Your task to perform on an android device: open sync settings in chrome Image 0: 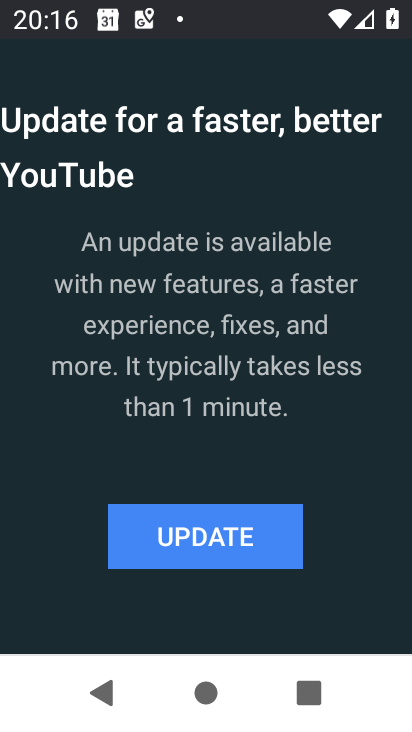
Step 0: press home button
Your task to perform on an android device: open sync settings in chrome Image 1: 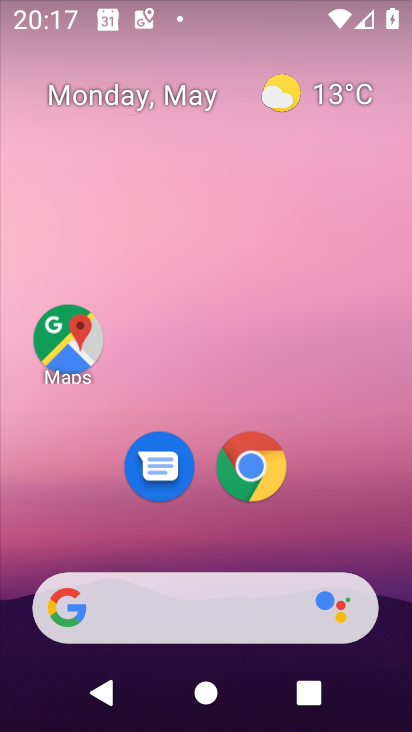
Step 1: drag from (302, 548) to (357, 257)
Your task to perform on an android device: open sync settings in chrome Image 2: 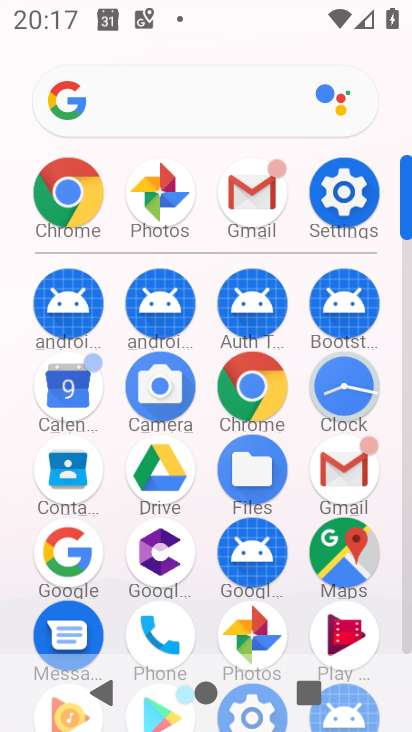
Step 2: click (237, 392)
Your task to perform on an android device: open sync settings in chrome Image 3: 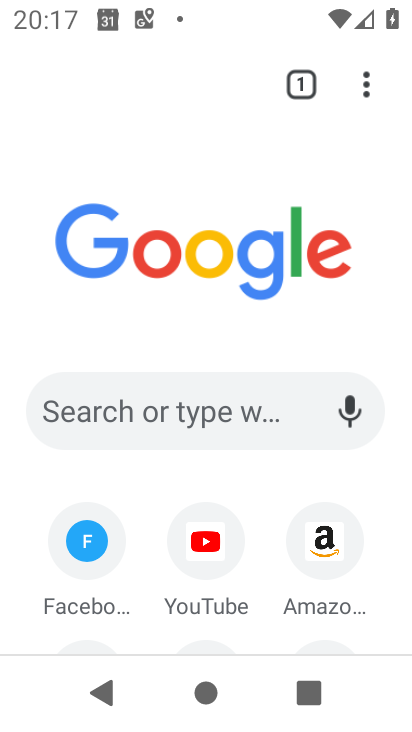
Step 3: click (355, 84)
Your task to perform on an android device: open sync settings in chrome Image 4: 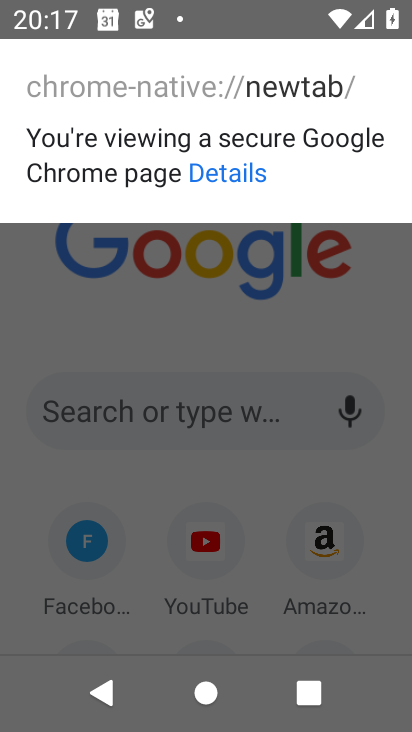
Step 4: click (344, 302)
Your task to perform on an android device: open sync settings in chrome Image 5: 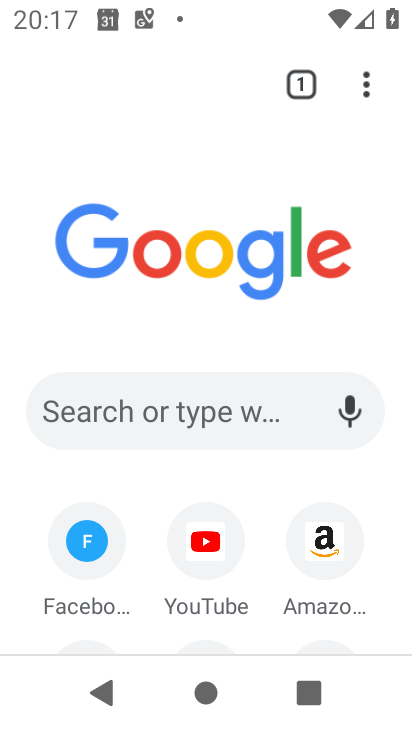
Step 5: click (345, 75)
Your task to perform on an android device: open sync settings in chrome Image 6: 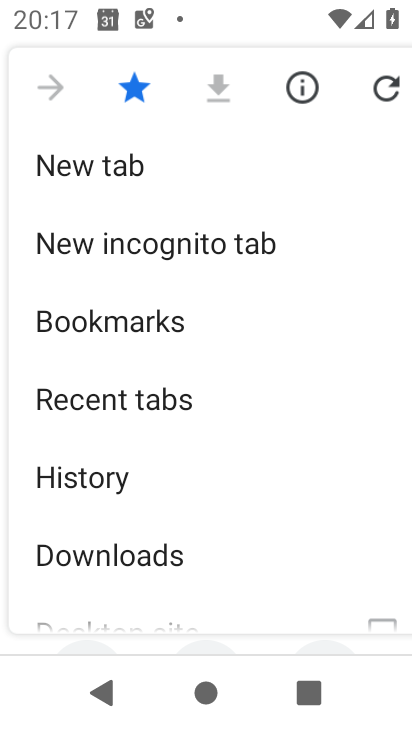
Step 6: drag from (174, 578) to (309, 214)
Your task to perform on an android device: open sync settings in chrome Image 7: 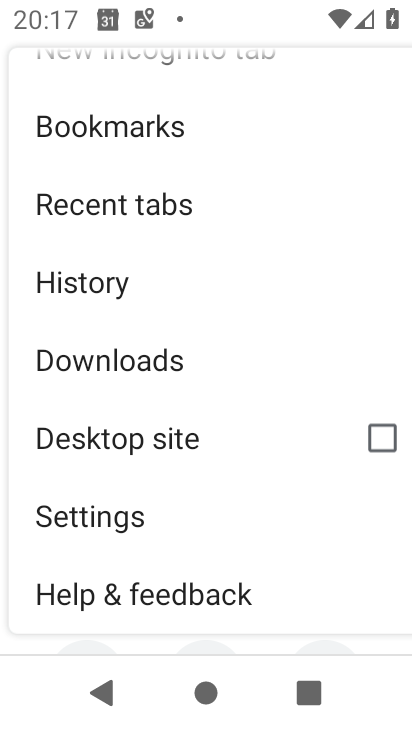
Step 7: click (109, 506)
Your task to perform on an android device: open sync settings in chrome Image 8: 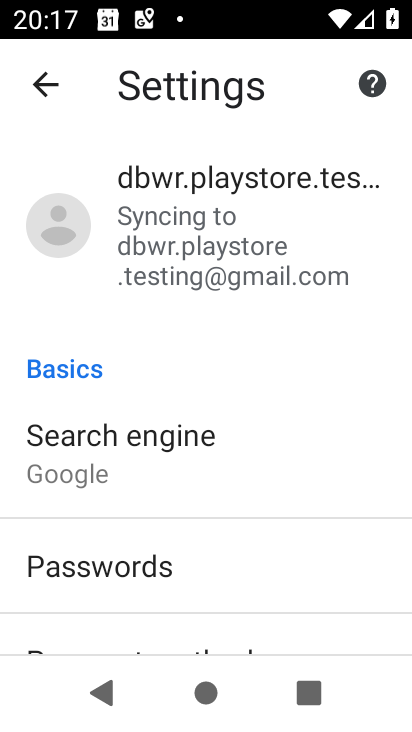
Step 8: click (178, 251)
Your task to perform on an android device: open sync settings in chrome Image 9: 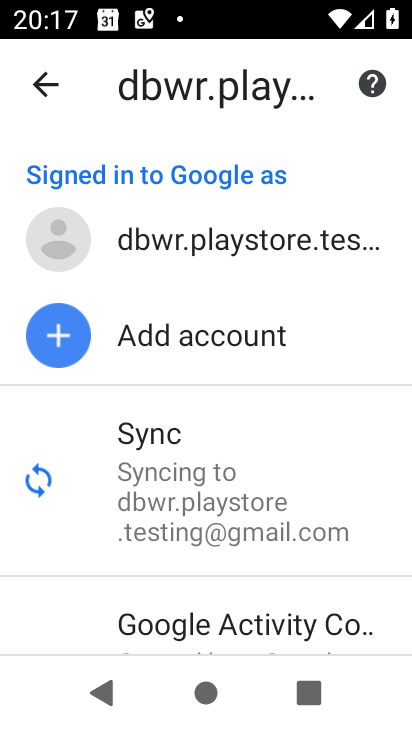
Step 9: task complete